Your task to perform on an android device: toggle airplane mode Image 0: 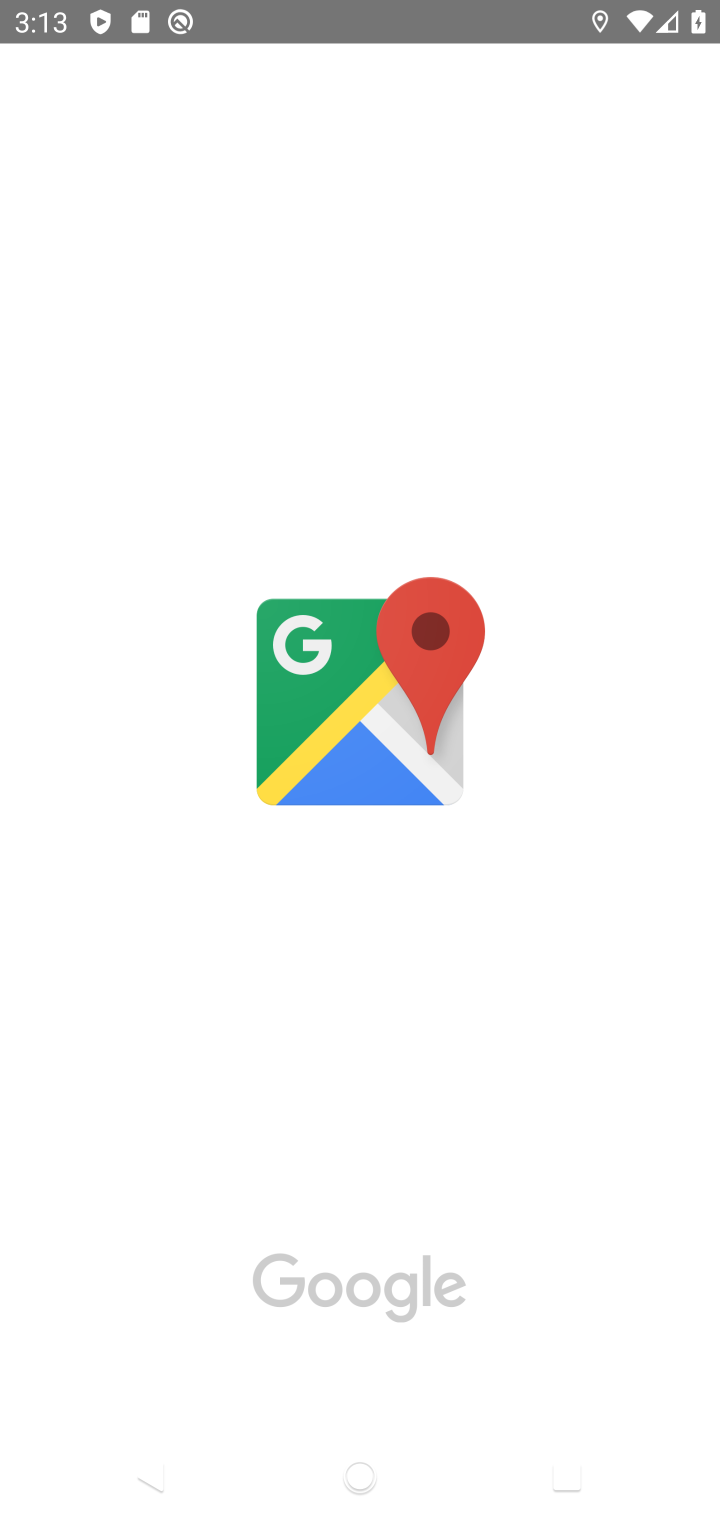
Step 0: press home button
Your task to perform on an android device: toggle airplane mode Image 1: 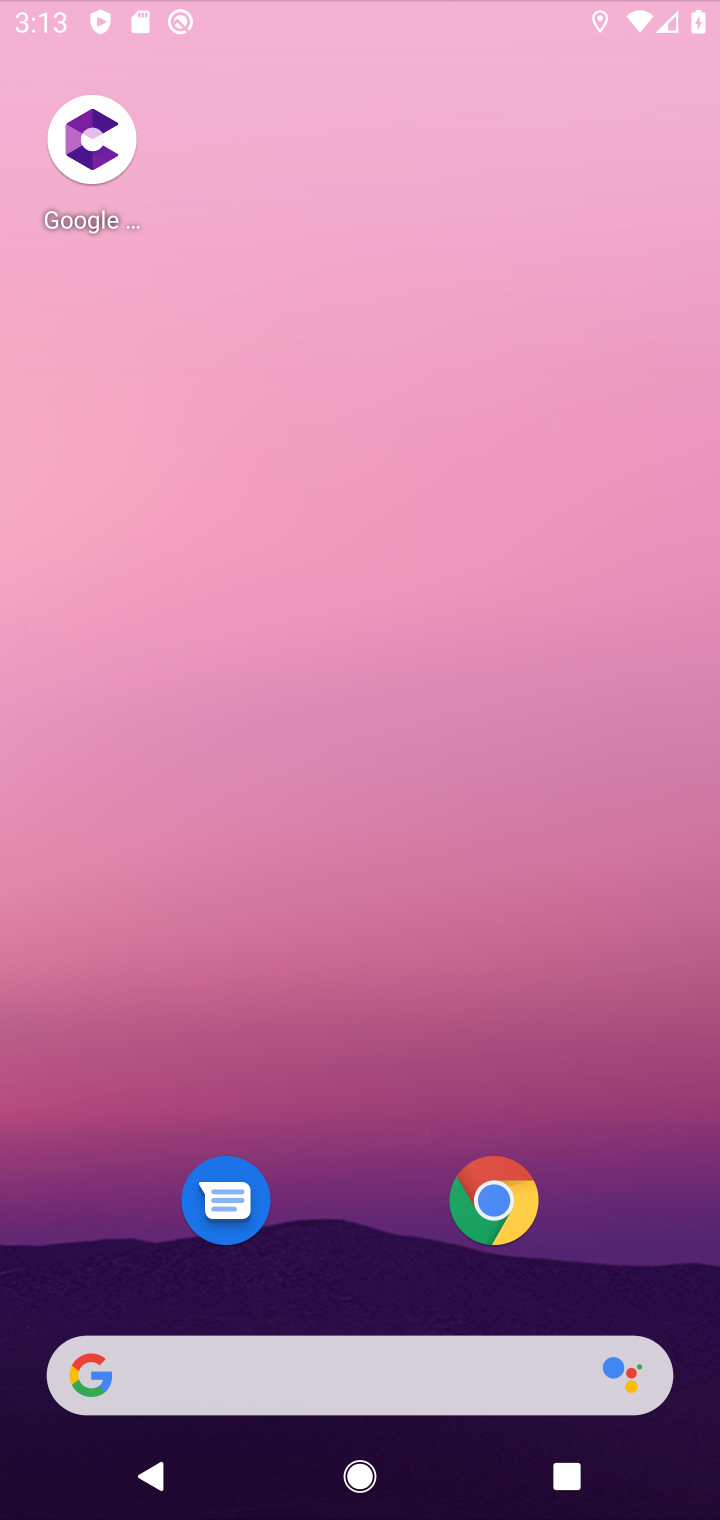
Step 1: drag from (426, 1424) to (368, 459)
Your task to perform on an android device: toggle airplane mode Image 2: 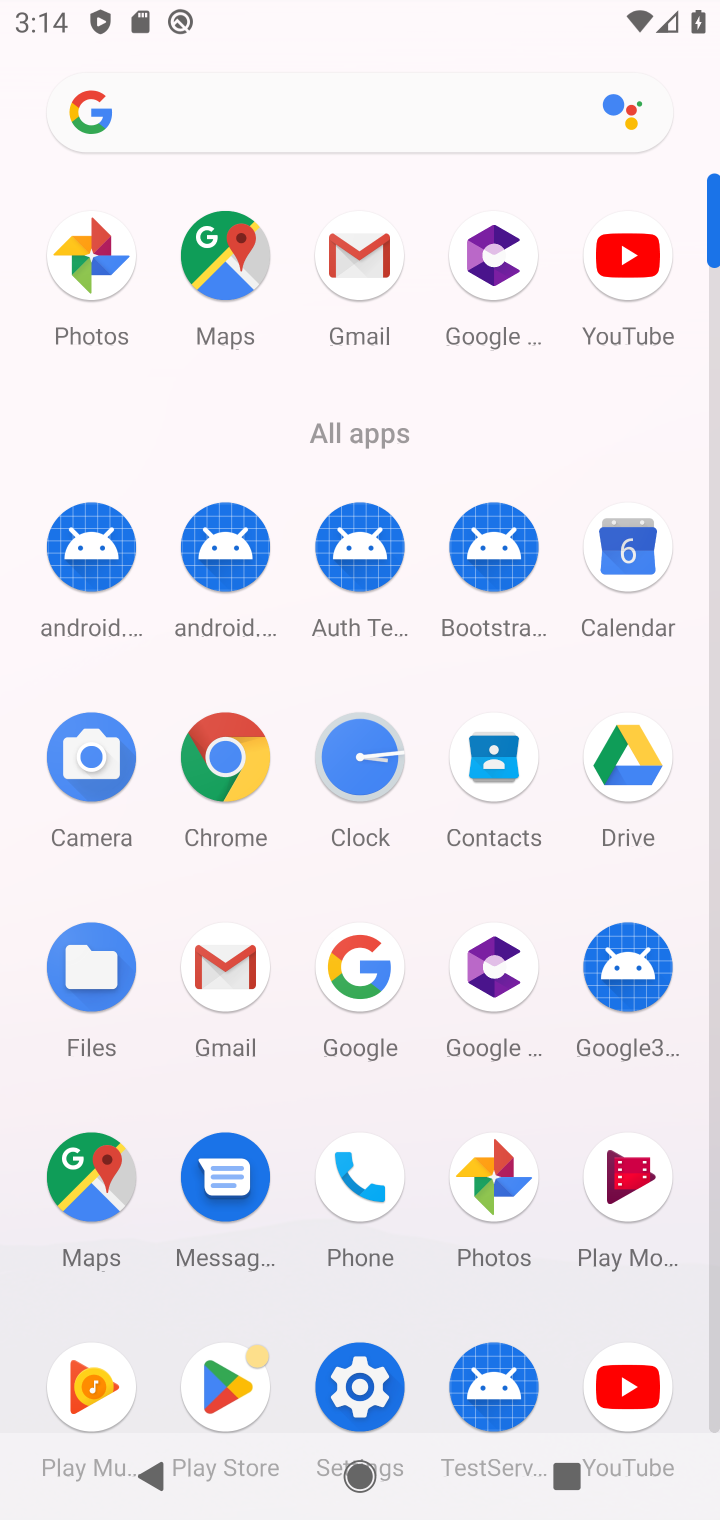
Step 2: click (347, 1389)
Your task to perform on an android device: toggle airplane mode Image 3: 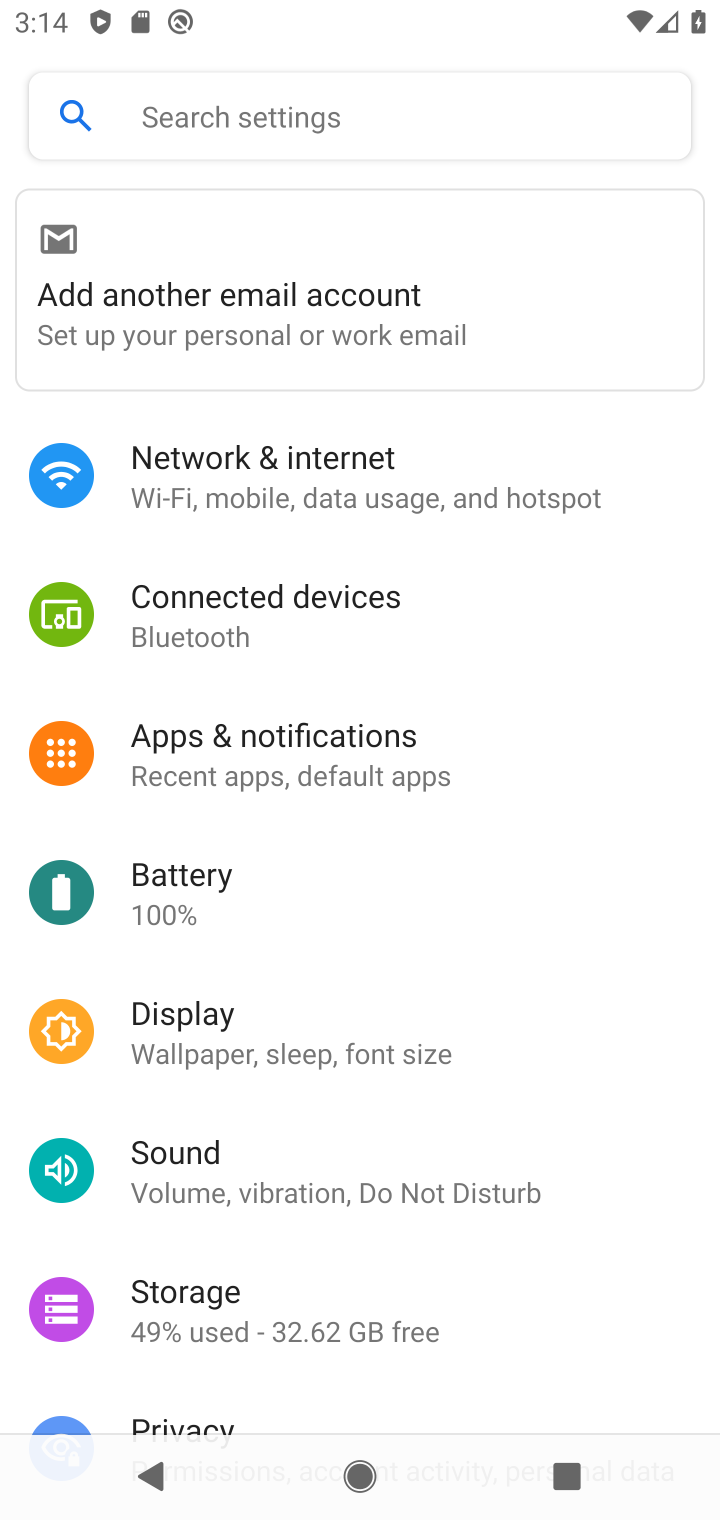
Step 3: click (311, 472)
Your task to perform on an android device: toggle airplane mode Image 4: 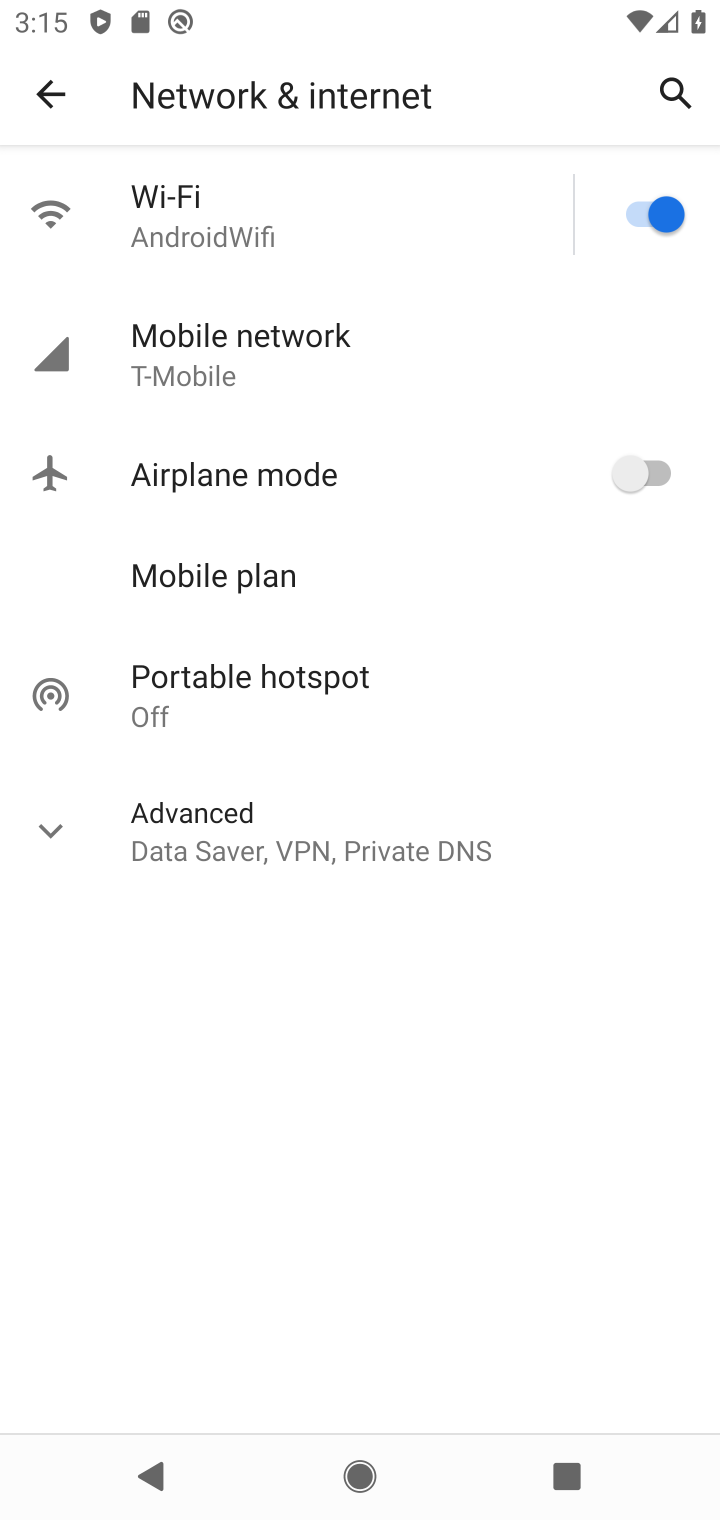
Step 4: click (651, 474)
Your task to perform on an android device: toggle airplane mode Image 5: 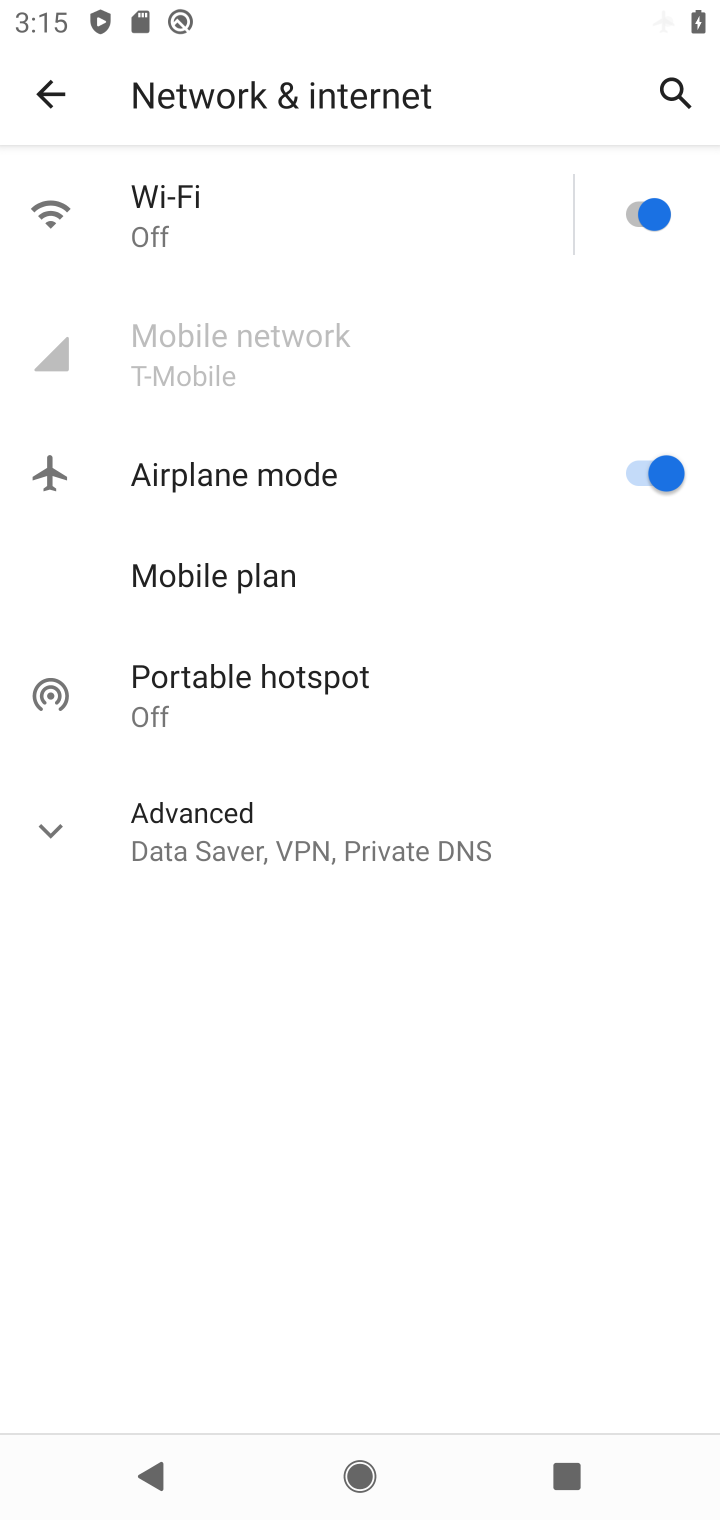
Step 5: task complete